Your task to perform on an android device: turn notification dots off Image 0: 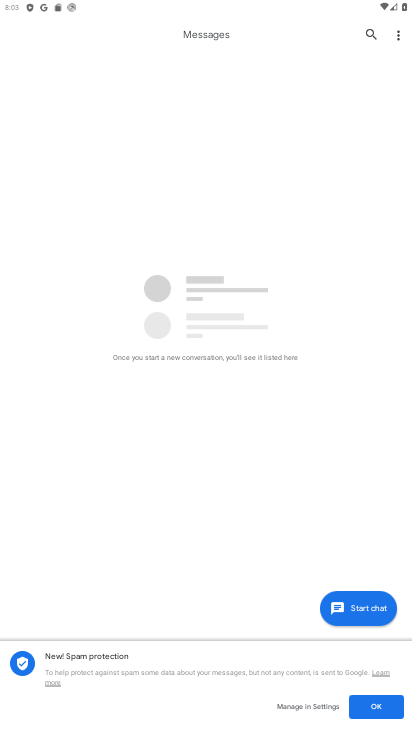
Step 0: press home button
Your task to perform on an android device: turn notification dots off Image 1: 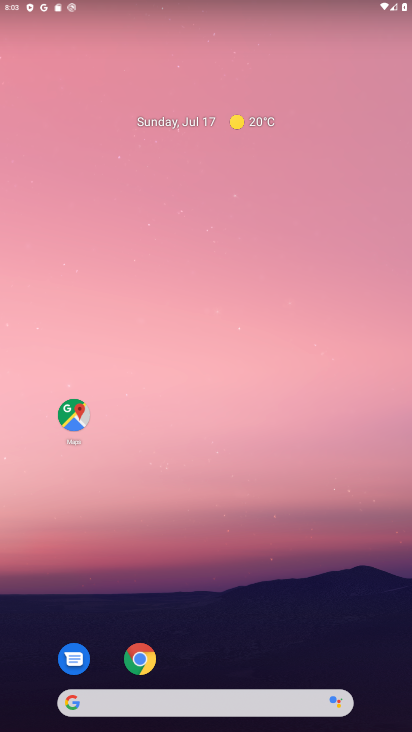
Step 1: drag from (347, 635) to (325, 308)
Your task to perform on an android device: turn notification dots off Image 2: 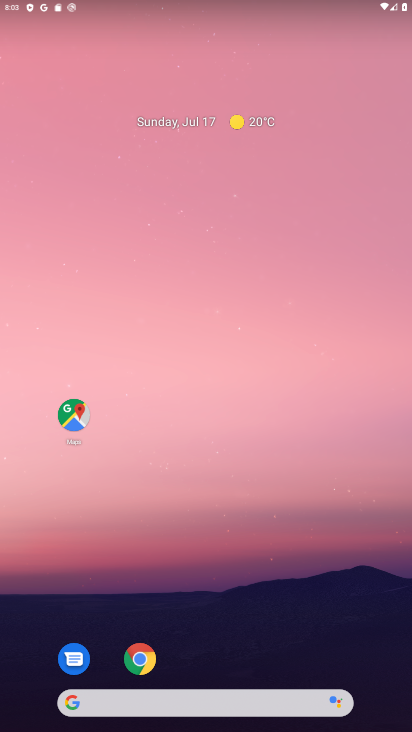
Step 2: drag from (343, 664) to (292, 163)
Your task to perform on an android device: turn notification dots off Image 3: 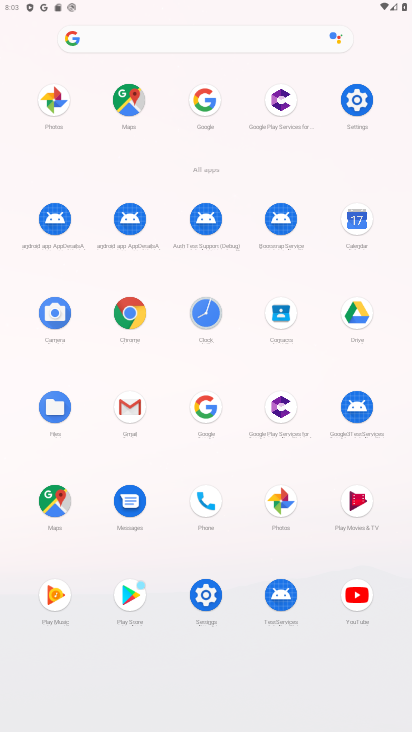
Step 3: click (366, 94)
Your task to perform on an android device: turn notification dots off Image 4: 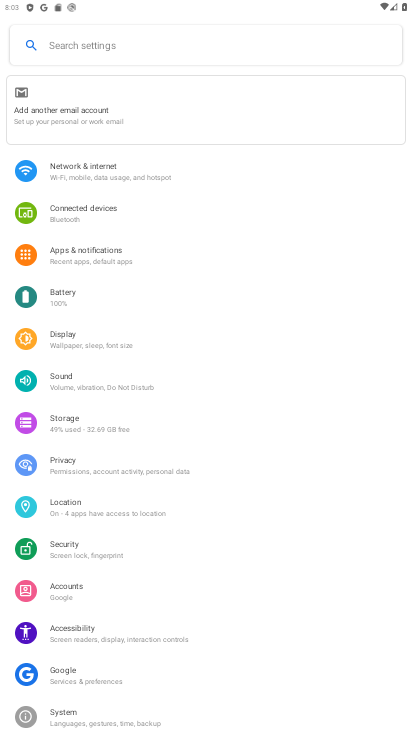
Step 4: click (233, 264)
Your task to perform on an android device: turn notification dots off Image 5: 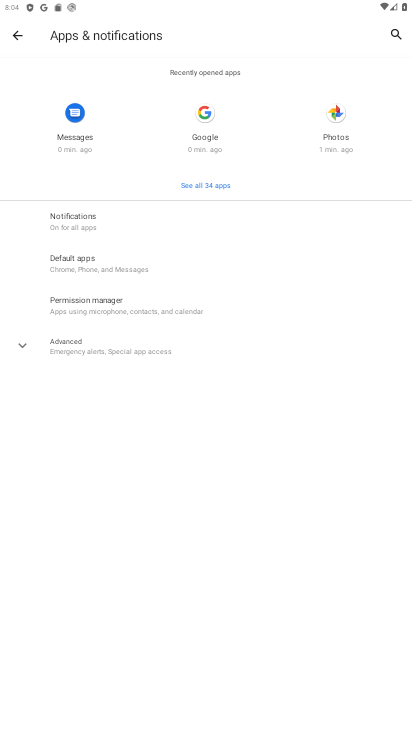
Step 5: click (213, 224)
Your task to perform on an android device: turn notification dots off Image 6: 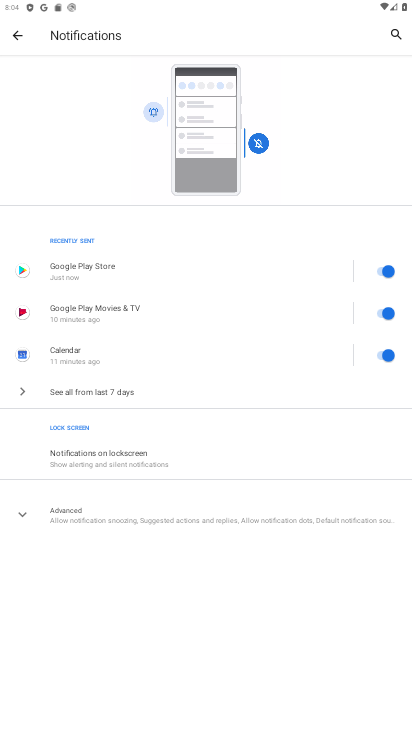
Step 6: click (250, 524)
Your task to perform on an android device: turn notification dots off Image 7: 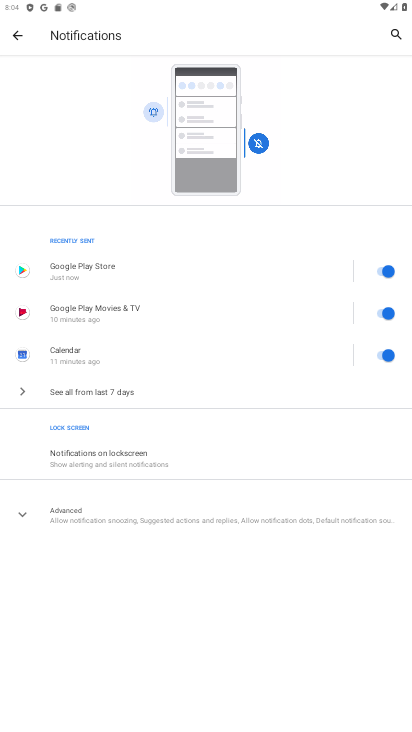
Step 7: click (196, 515)
Your task to perform on an android device: turn notification dots off Image 8: 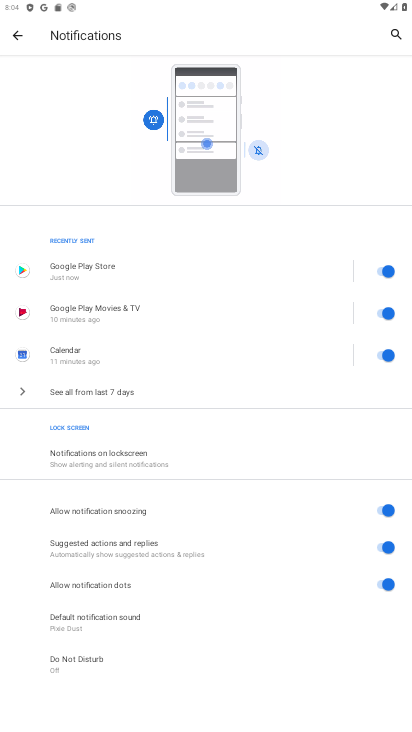
Step 8: click (383, 589)
Your task to perform on an android device: turn notification dots off Image 9: 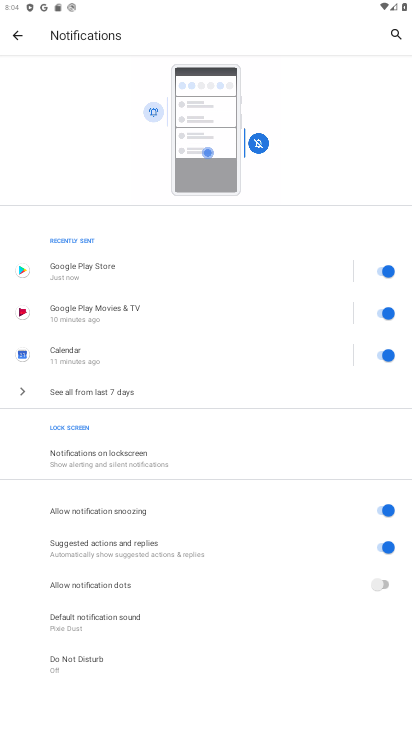
Step 9: task complete